Your task to perform on an android device: uninstall "Messenger Lite" Image 0: 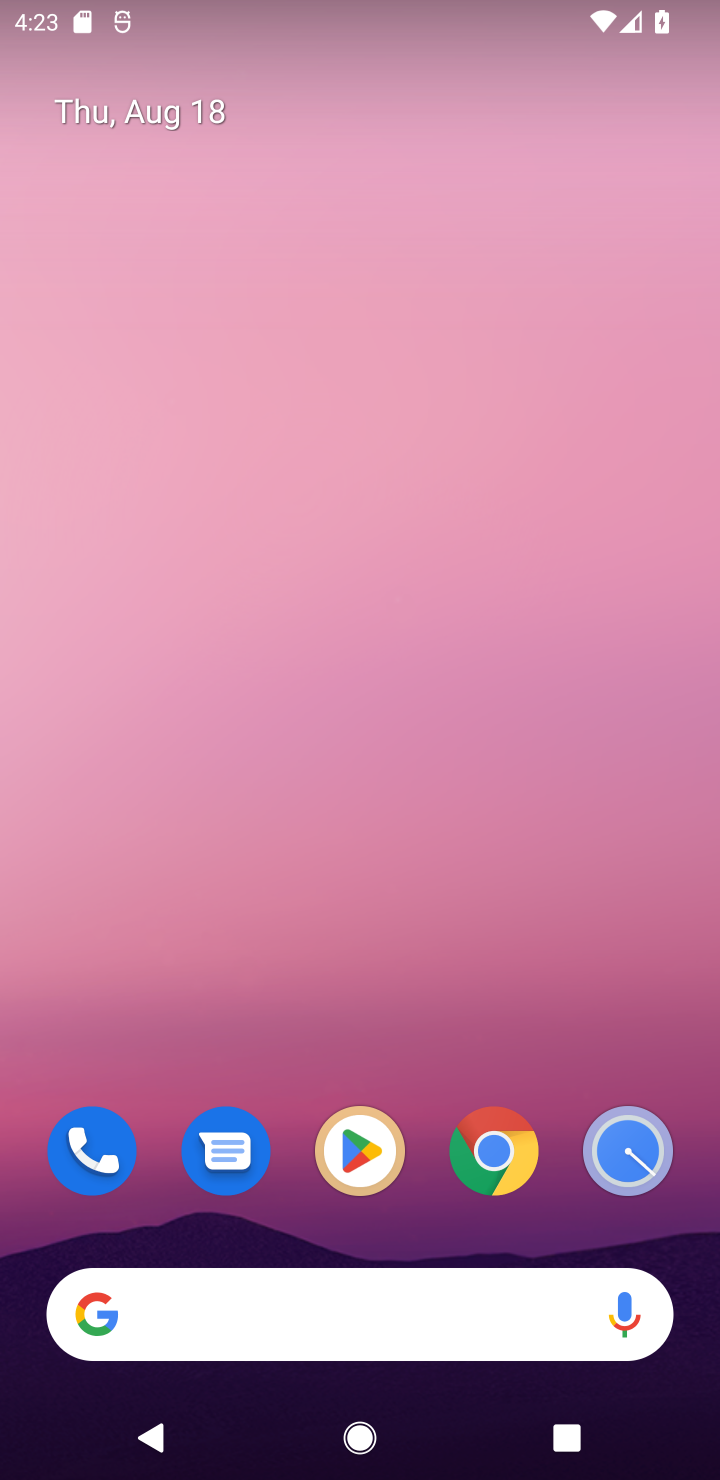
Step 0: click (335, 1137)
Your task to perform on an android device: uninstall "Messenger Lite" Image 1: 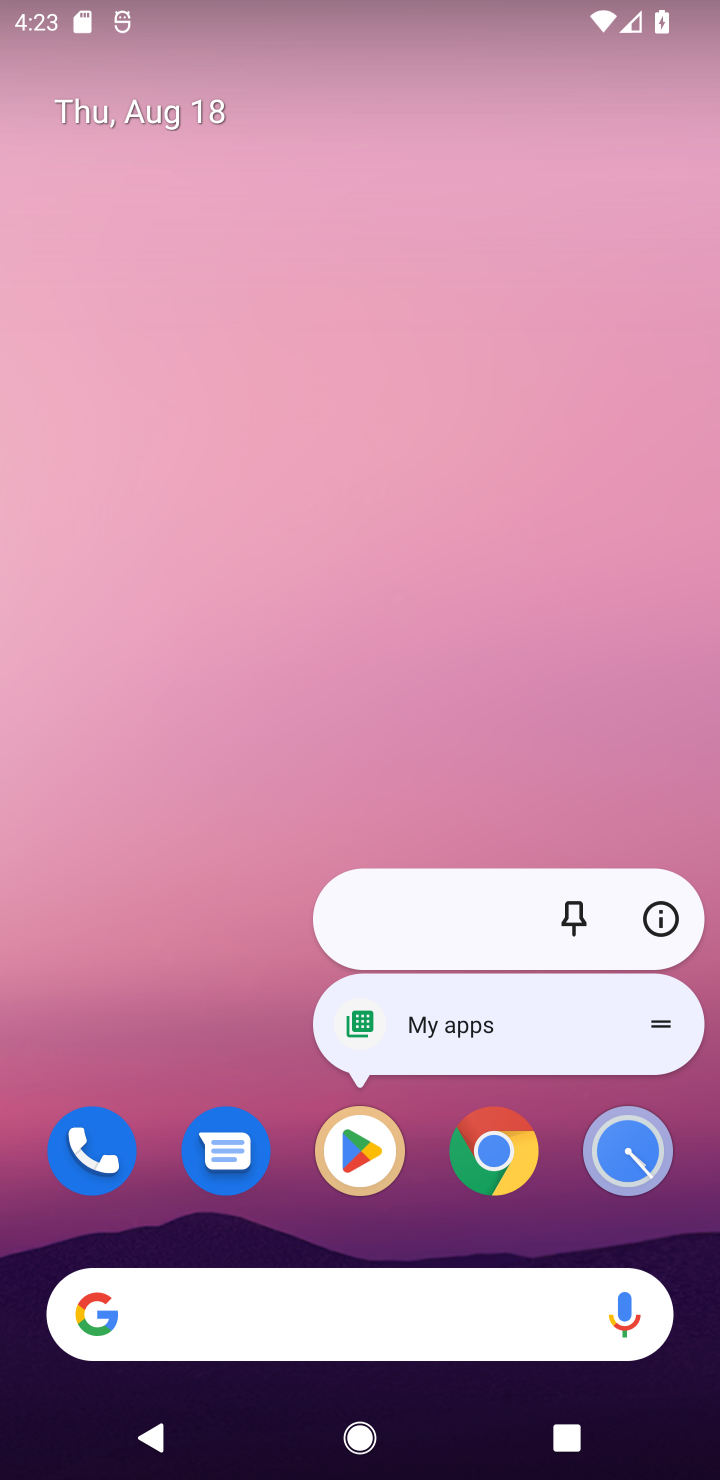
Step 1: click (349, 1175)
Your task to perform on an android device: uninstall "Messenger Lite" Image 2: 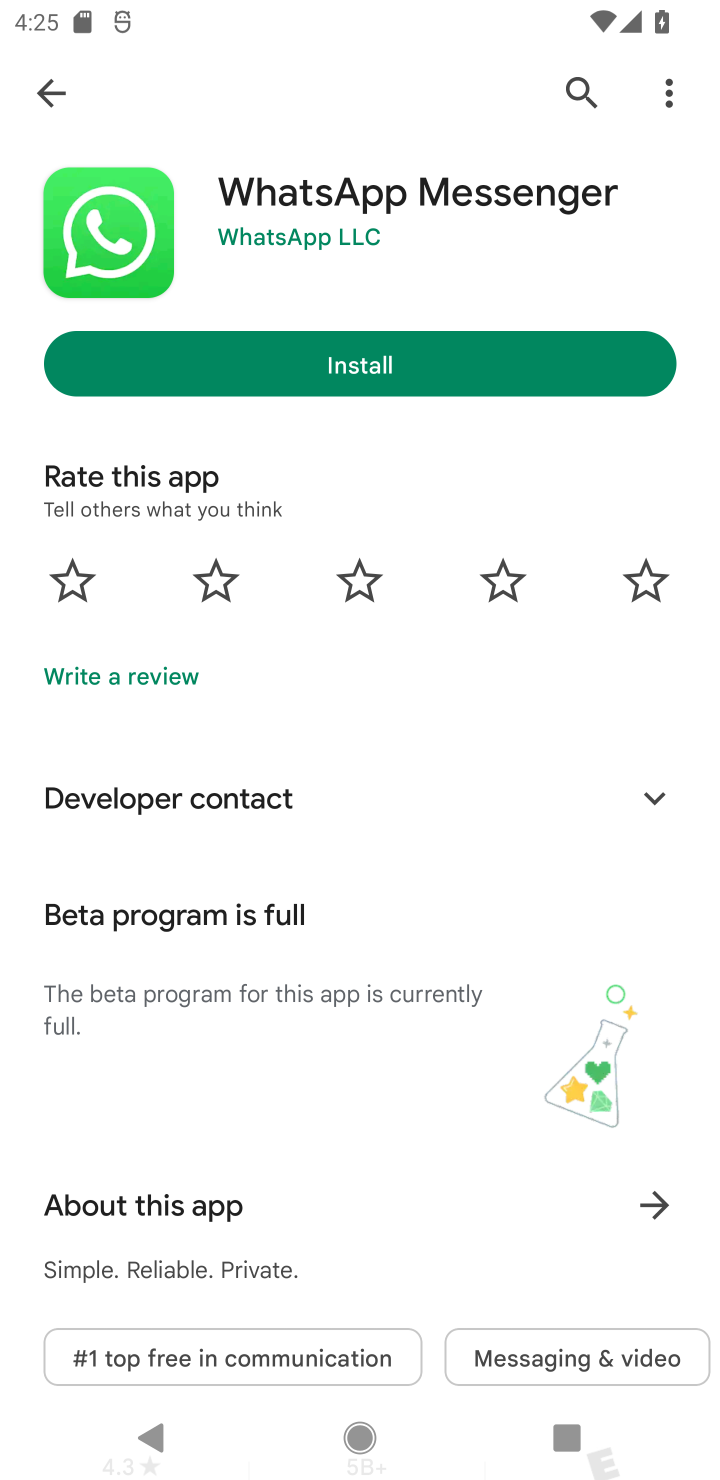
Step 2: click (62, 110)
Your task to perform on an android device: uninstall "Messenger Lite" Image 3: 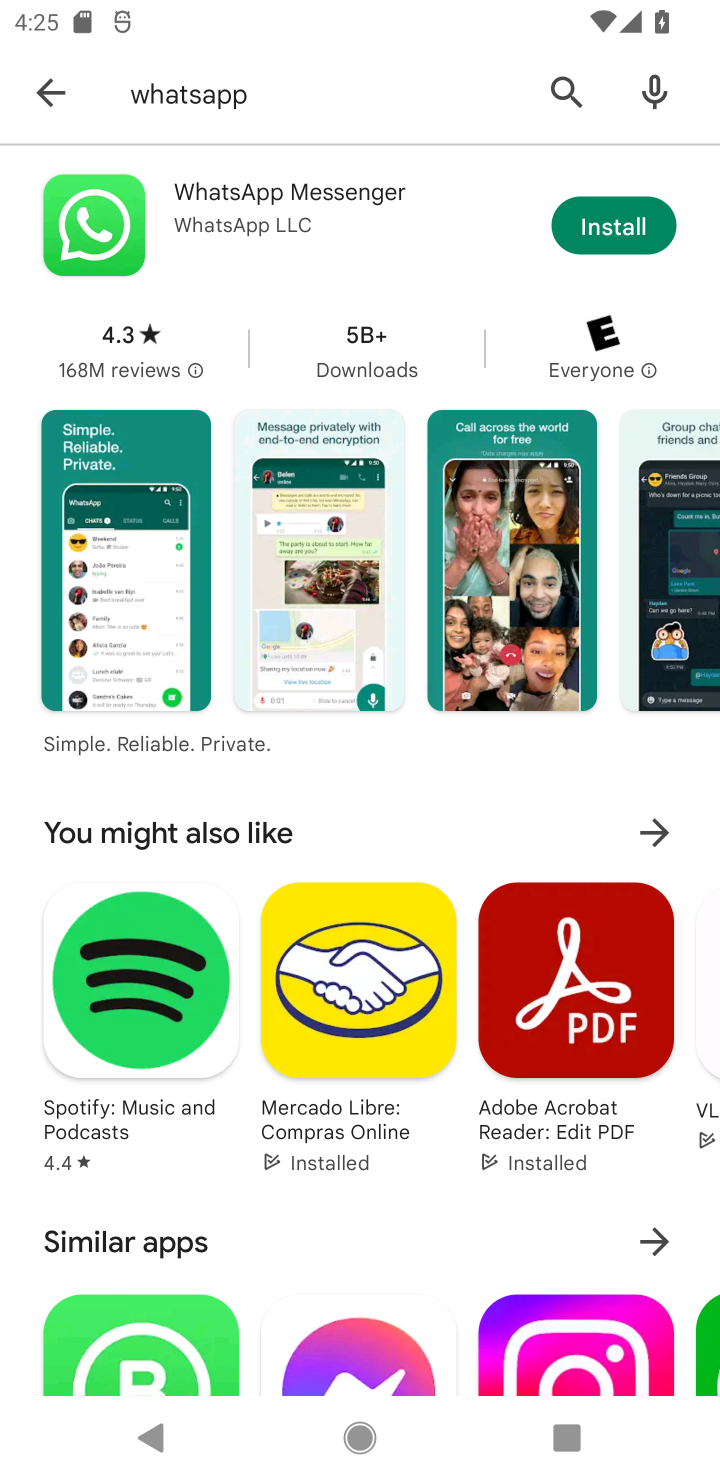
Step 3: click (557, 106)
Your task to perform on an android device: uninstall "Messenger Lite" Image 4: 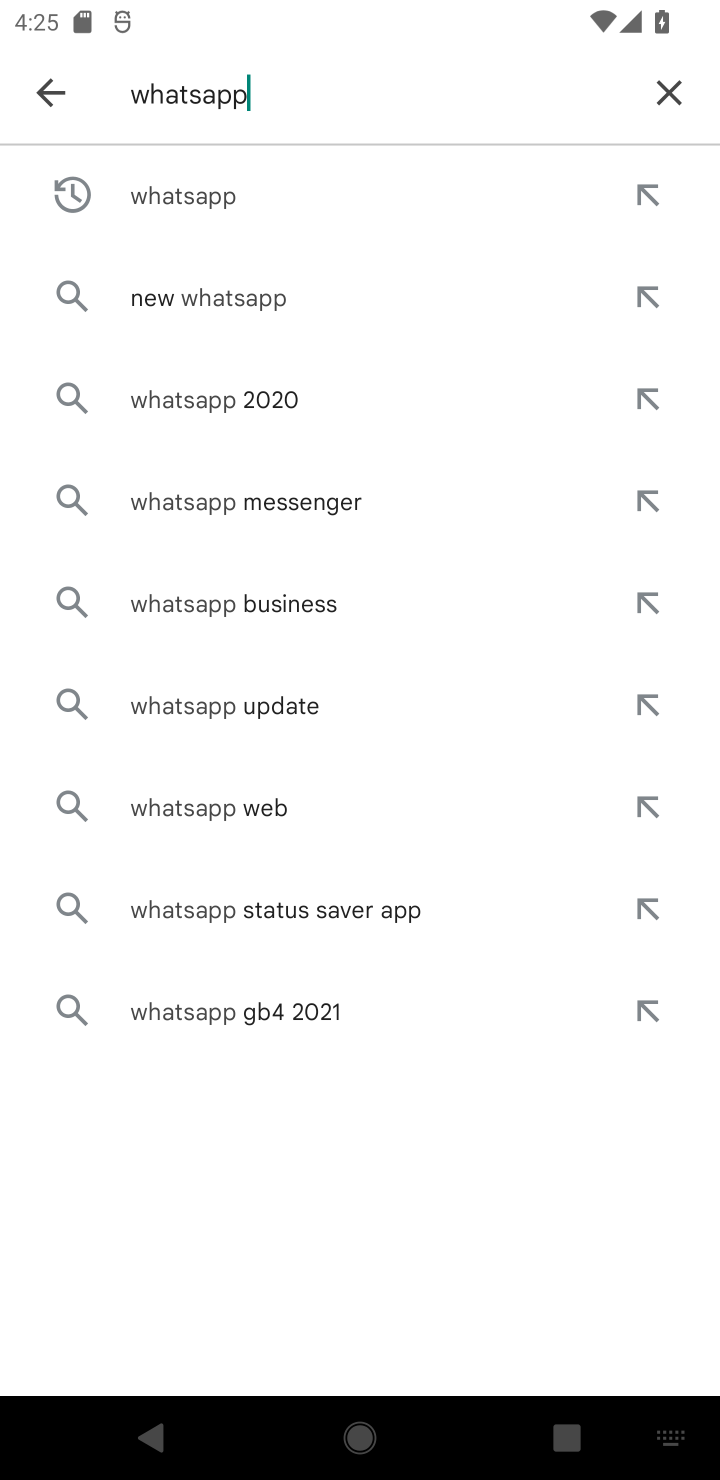
Step 4: click (680, 87)
Your task to perform on an android device: uninstall "Messenger Lite" Image 5: 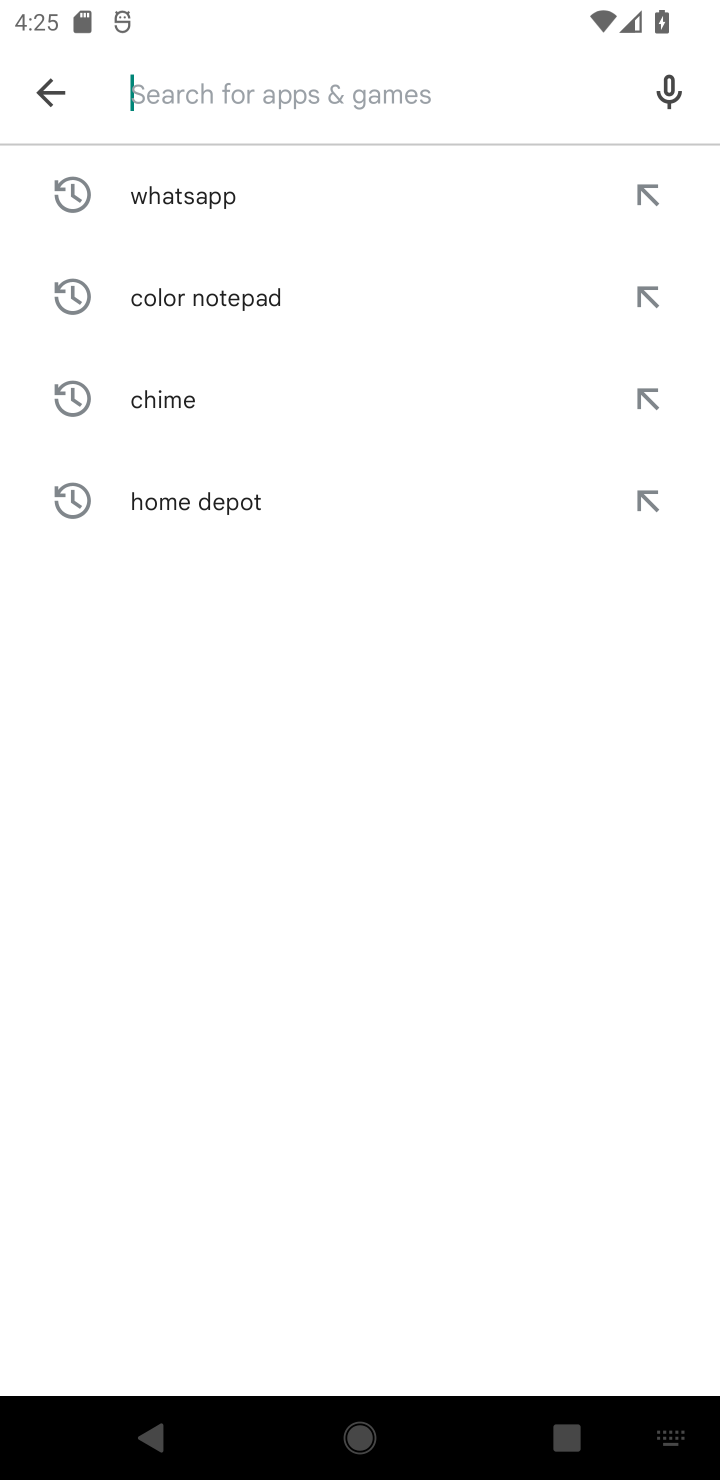
Step 5: type "messanger"
Your task to perform on an android device: uninstall "Messenger Lite" Image 6: 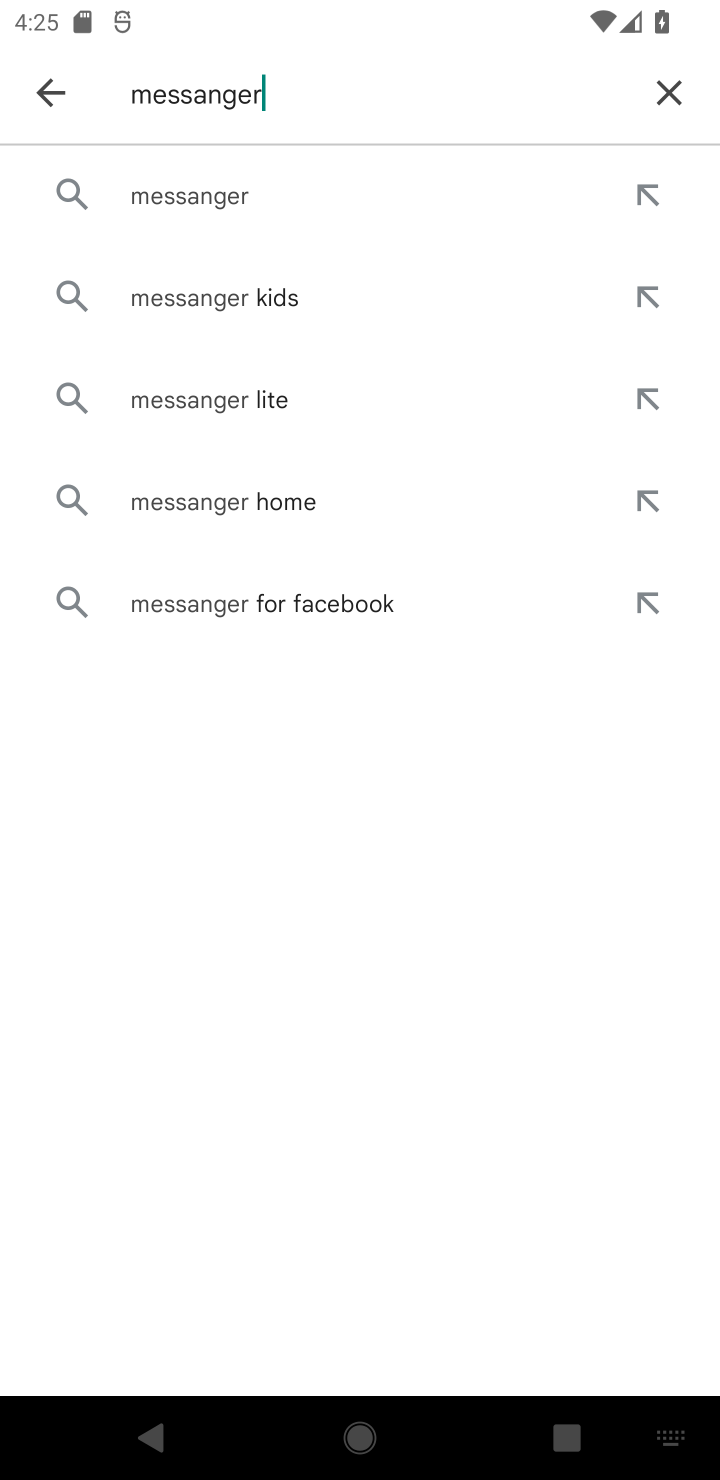
Step 6: click (175, 179)
Your task to perform on an android device: uninstall "Messenger Lite" Image 7: 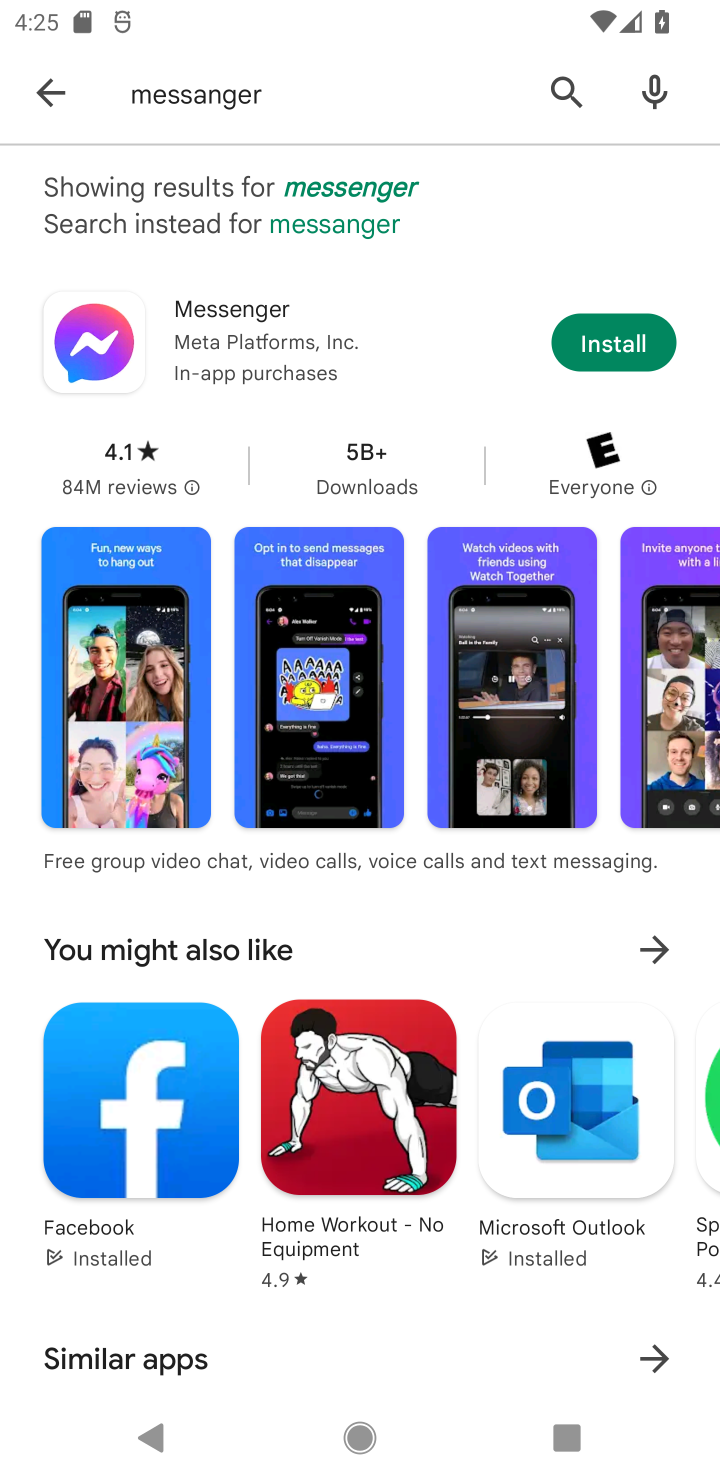
Step 7: click (581, 336)
Your task to perform on an android device: uninstall "Messenger Lite" Image 8: 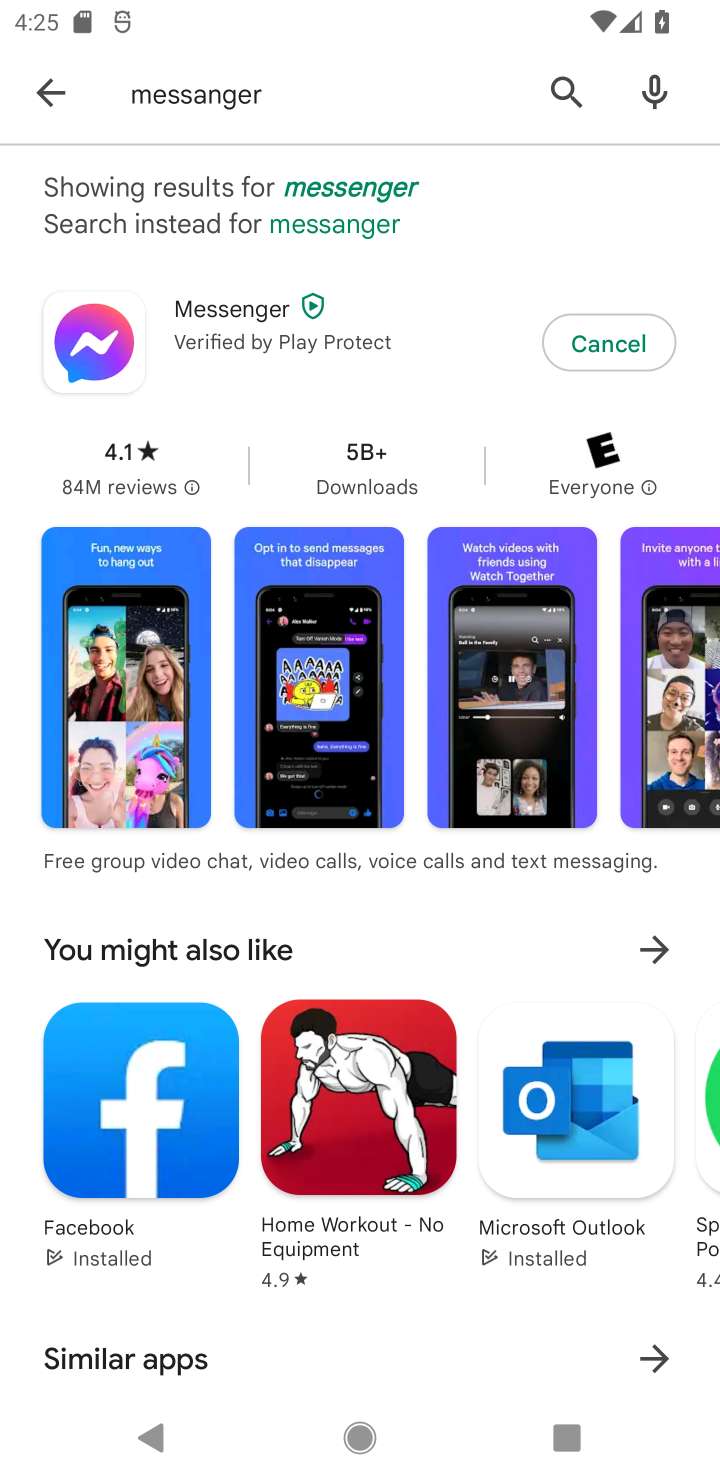
Step 8: task complete